Your task to perform on an android device: Open my contact list Image 0: 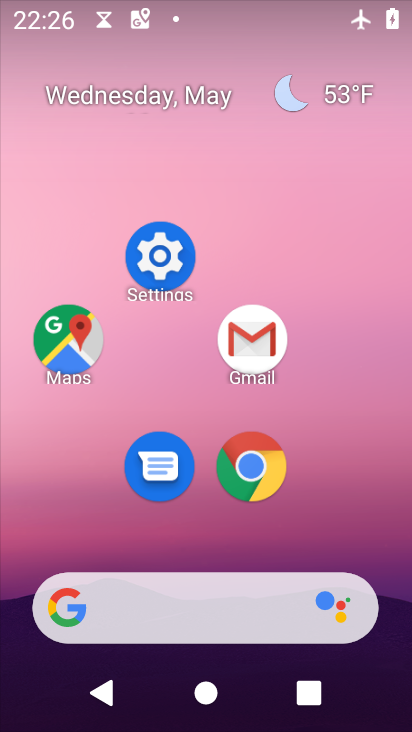
Step 0: drag from (217, 527) to (227, 97)
Your task to perform on an android device: Open my contact list Image 1: 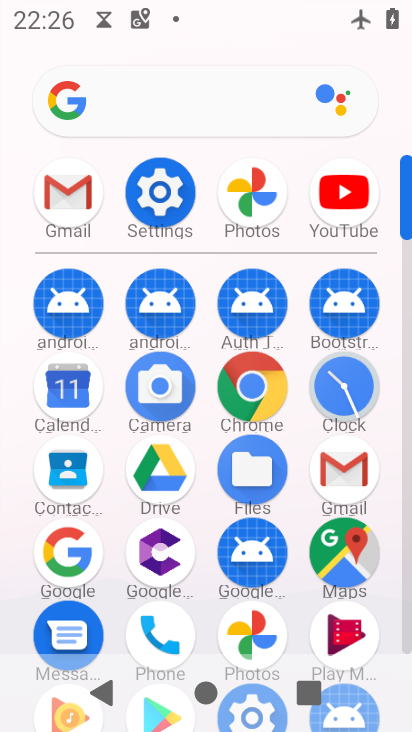
Step 1: click (62, 459)
Your task to perform on an android device: Open my contact list Image 2: 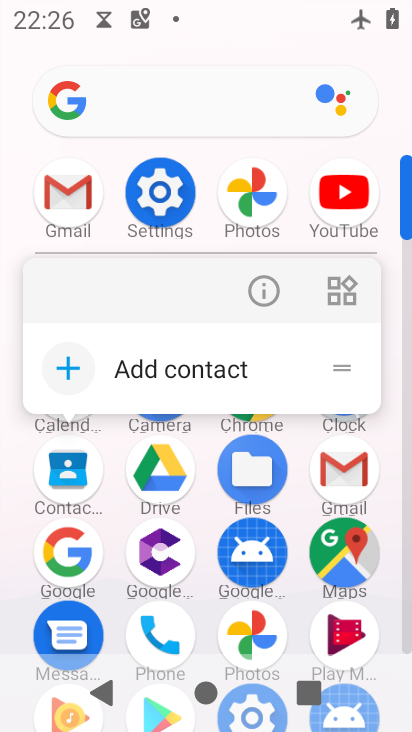
Step 2: click (256, 292)
Your task to perform on an android device: Open my contact list Image 3: 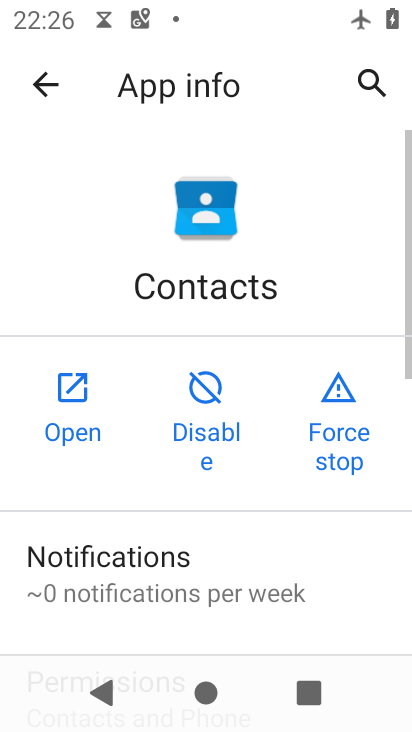
Step 3: click (75, 389)
Your task to perform on an android device: Open my contact list Image 4: 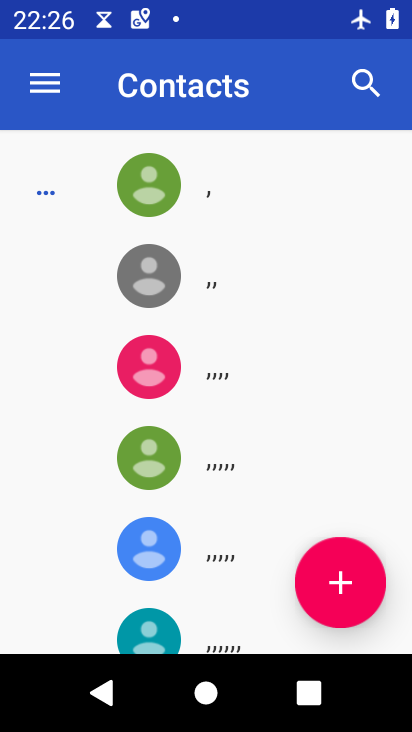
Step 4: task complete